Your task to perform on an android device: turn off picture-in-picture Image 0: 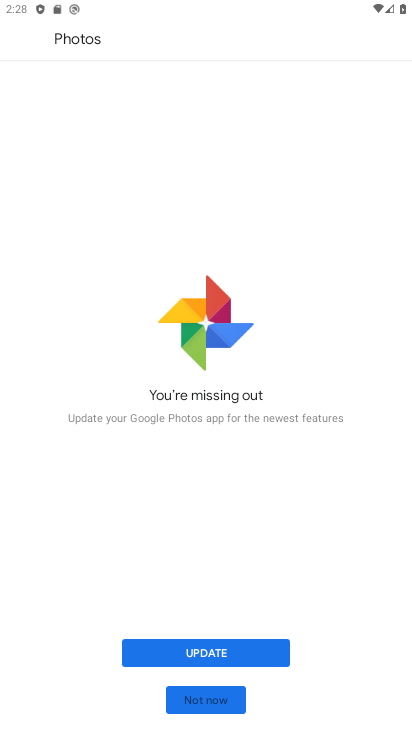
Step 0: press home button
Your task to perform on an android device: turn off picture-in-picture Image 1: 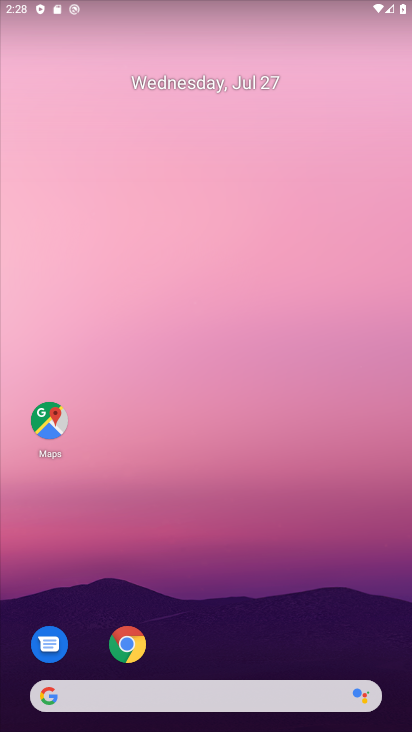
Step 1: click (132, 649)
Your task to perform on an android device: turn off picture-in-picture Image 2: 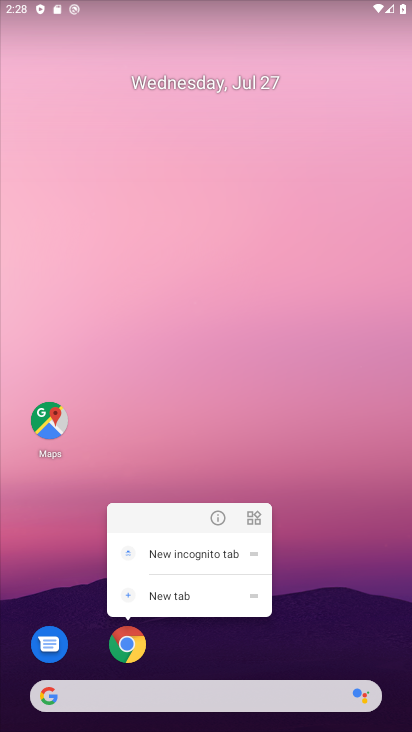
Step 2: click (218, 517)
Your task to perform on an android device: turn off picture-in-picture Image 3: 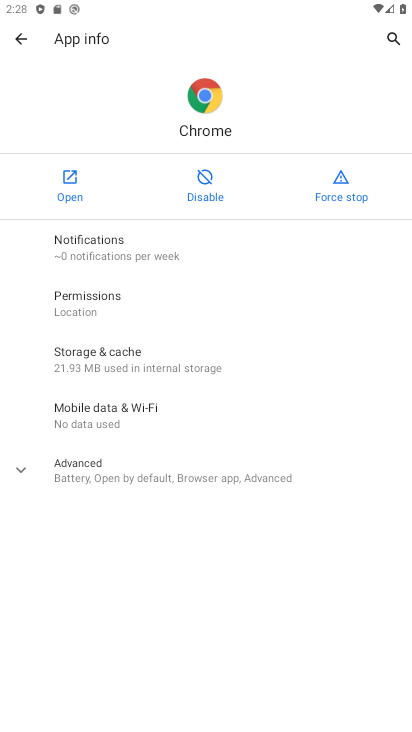
Step 3: click (105, 470)
Your task to perform on an android device: turn off picture-in-picture Image 4: 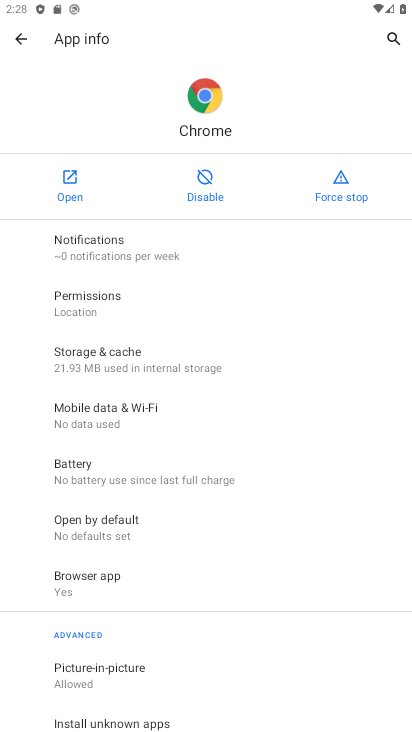
Step 4: click (106, 673)
Your task to perform on an android device: turn off picture-in-picture Image 5: 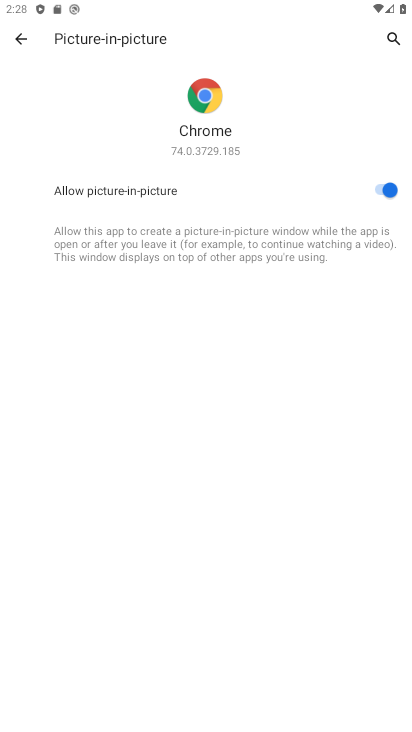
Step 5: click (353, 188)
Your task to perform on an android device: turn off picture-in-picture Image 6: 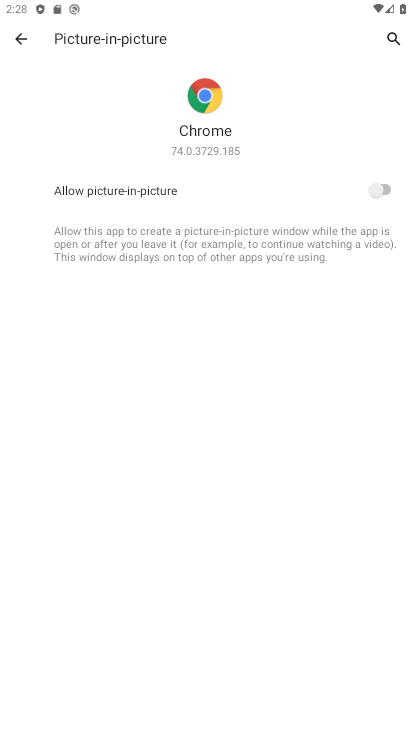
Step 6: task complete